Your task to perform on an android device: Open Maps and search for coffee Image 0: 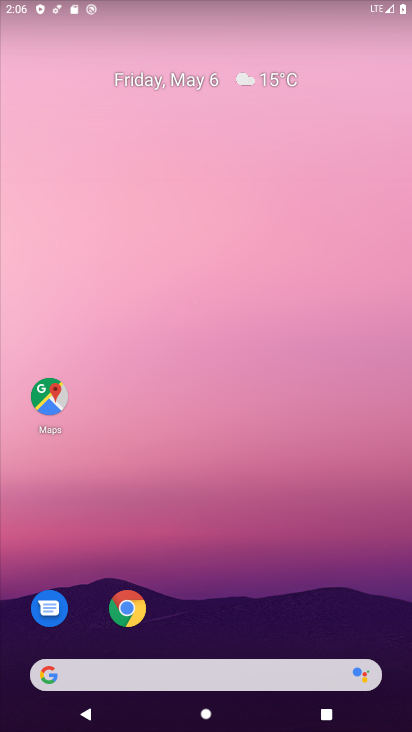
Step 0: click (49, 398)
Your task to perform on an android device: Open Maps and search for coffee Image 1: 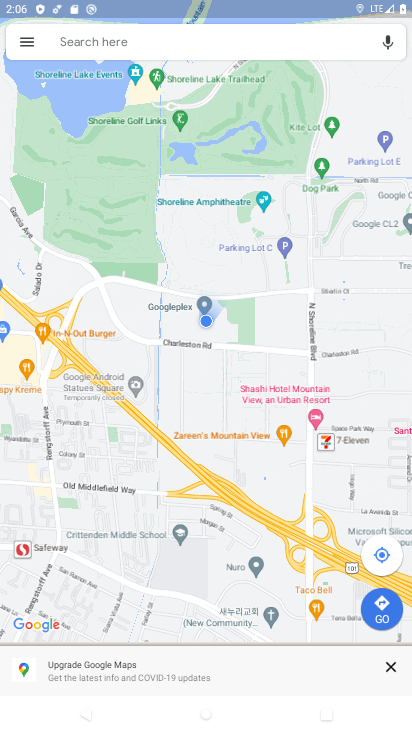
Step 1: click (231, 42)
Your task to perform on an android device: Open Maps and search for coffee Image 2: 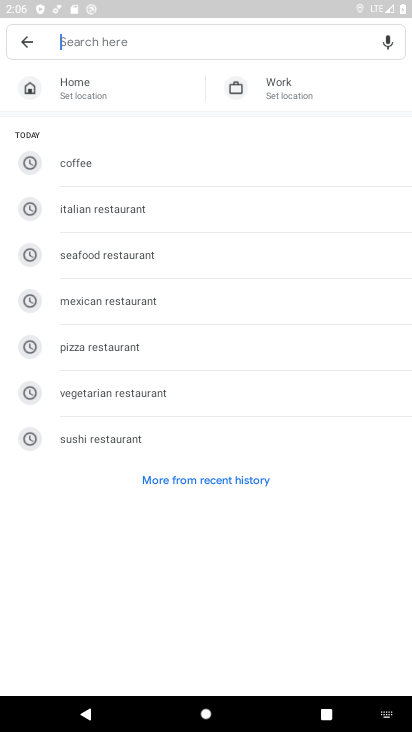
Step 2: click (73, 168)
Your task to perform on an android device: Open Maps and search for coffee Image 3: 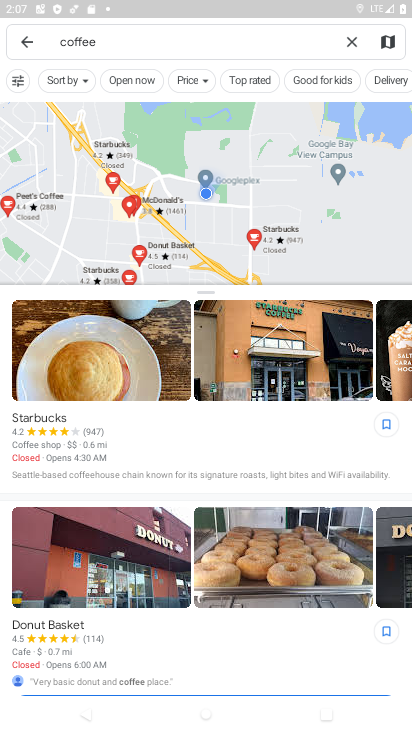
Step 3: task complete